Your task to perform on an android device: toggle show notifications on the lock screen Image 0: 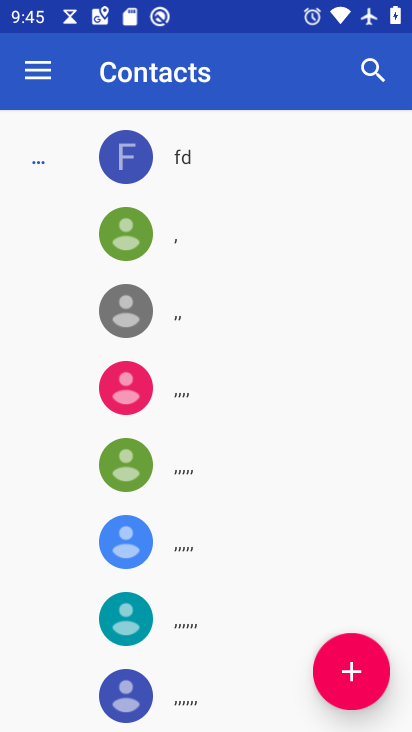
Step 0: press home button
Your task to perform on an android device: toggle show notifications on the lock screen Image 1: 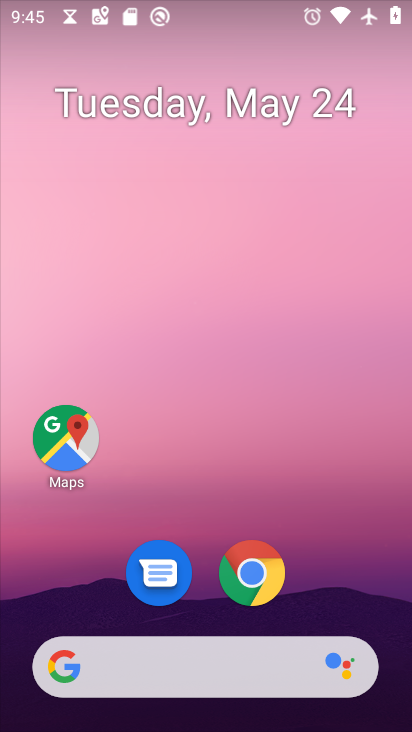
Step 1: drag from (343, 460) to (305, 60)
Your task to perform on an android device: toggle show notifications on the lock screen Image 2: 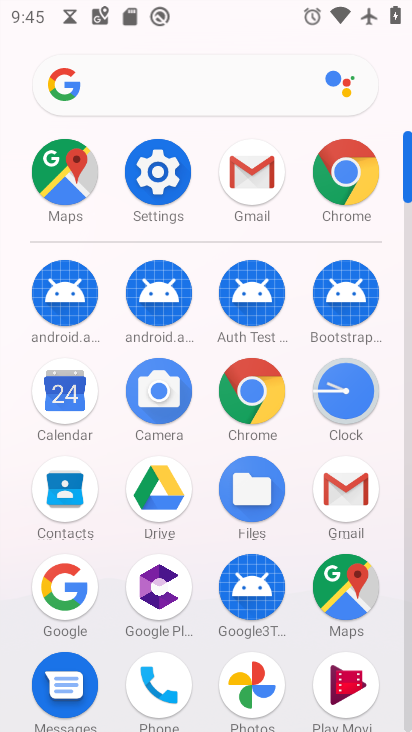
Step 2: click (156, 190)
Your task to perform on an android device: toggle show notifications on the lock screen Image 3: 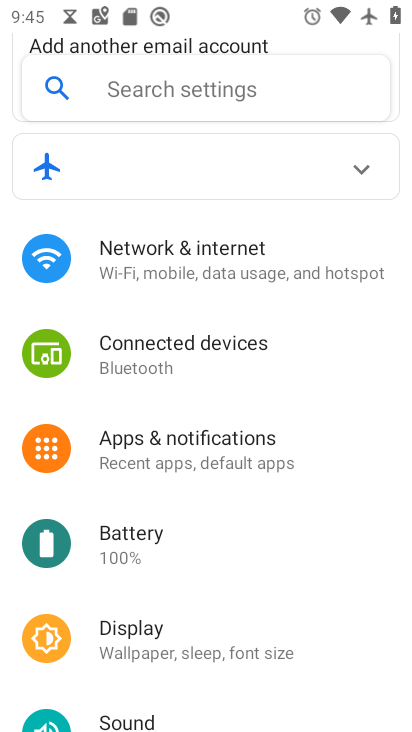
Step 3: click (179, 261)
Your task to perform on an android device: toggle show notifications on the lock screen Image 4: 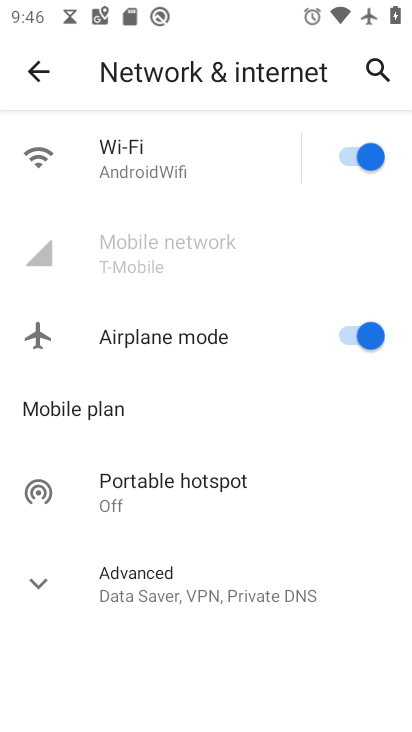
Step 4: drag from (205, 564) to (200, 176)
Your task to perform on an android device: toggle show notifications on the lock screen Image 5: 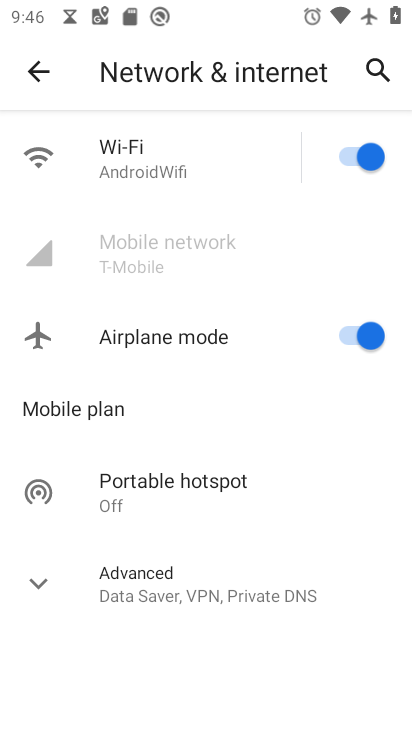
Step 5: drag from (223, 586) to (276, 127)
Your task to perform on an android device: toggle show notifications on the lock screen Image 6: 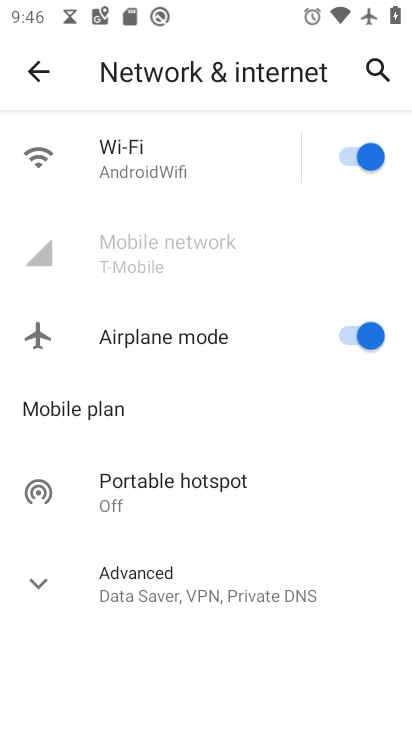
Step 6: click (232, 595)
Your task to perform on an android device: toggle show notifications on the lock screen Image 7: 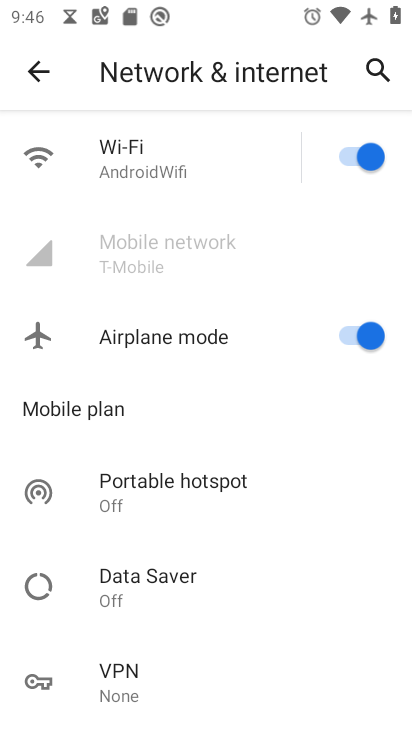
Step 7: click (52, 64)
Your task to perform on an android device: toggle show notifications on the lock screen Image 8: 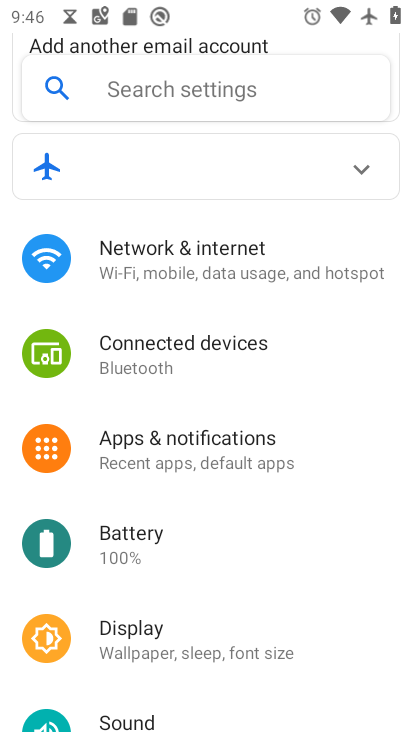
Step 8: click (224, 454)
Your task to perform on an android device: toggle show notifications on the lock screen Image 9: 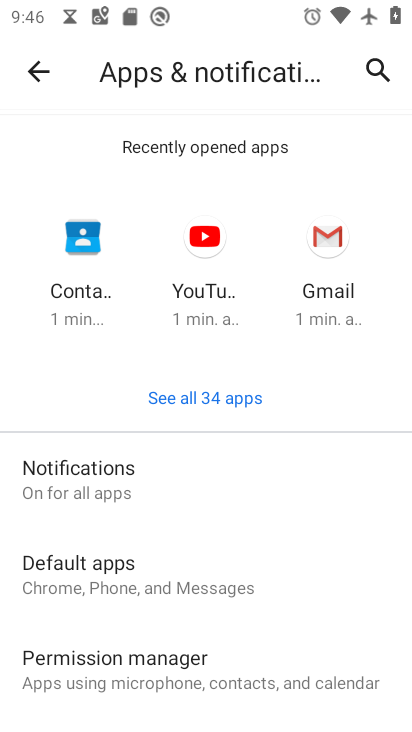
Step 9: click (46, 488)
Your task to perform on an android device: toggle show notifications on the lock screen Image 10: 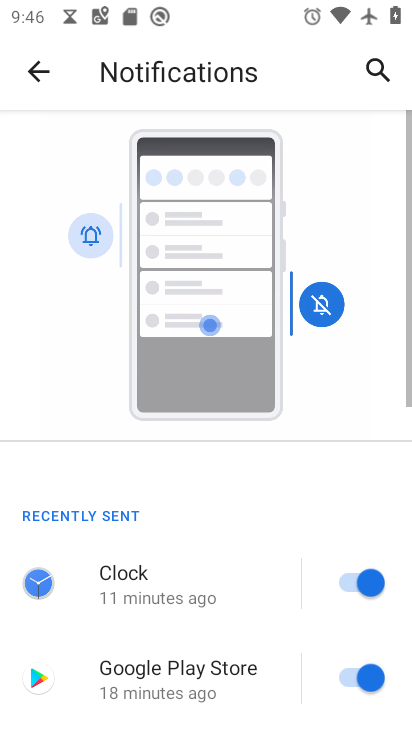
Step 10: drag from (221, 656) to (219, 138)
Your task to perform on an android device: toggle show notifications on the lock screen Image 11: 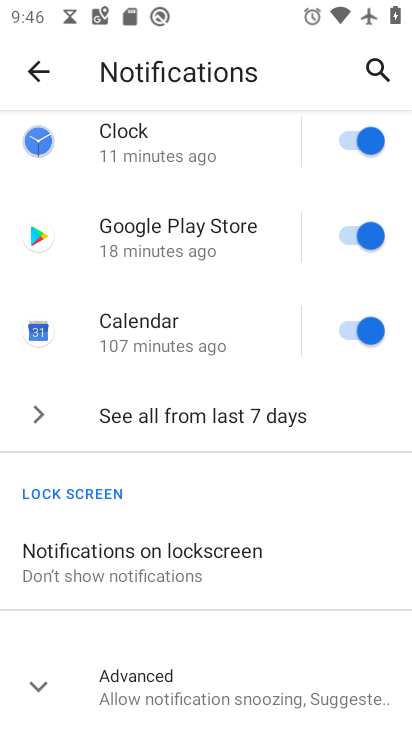
Step 11: drag from (200, 567) to (186, 88)
Your task to perform on an android device: toggle show notifications on the lock screen Image 12: 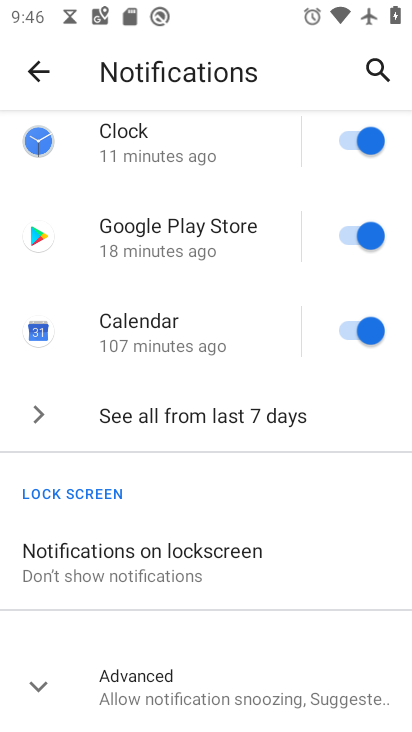
Step 12: click (147, 559)
Your task to perform on an android device: toggle show notifications on the lock screen Image 13: 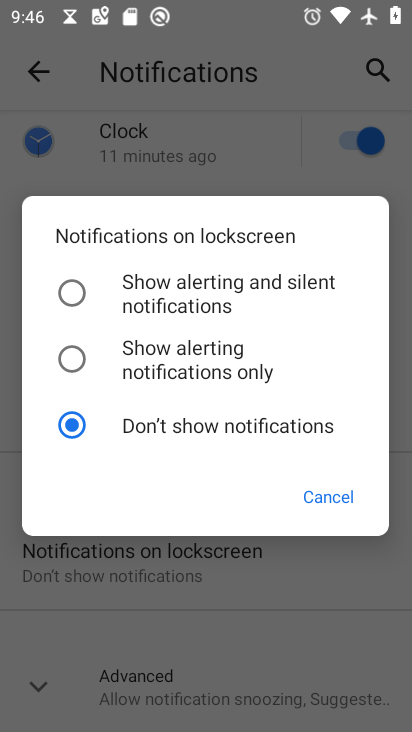
Step 13: click (67, 357)
Your task to perform on an android device: toggle show notifications on the lock screen Image 14: 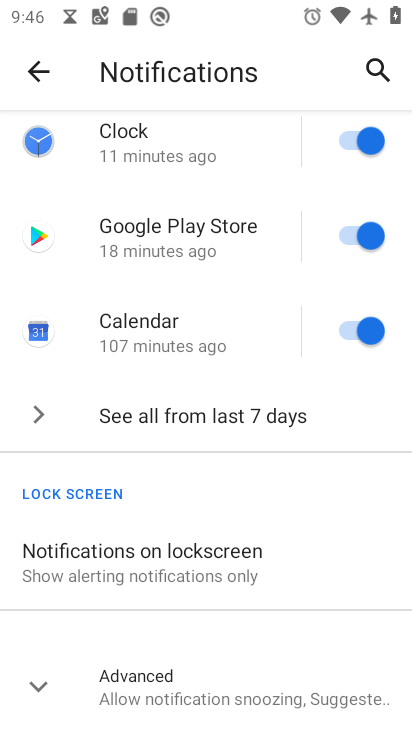
Step 14: task complete